Your task to perform on an android device: turn on the 12-hour format for clock Image 0: 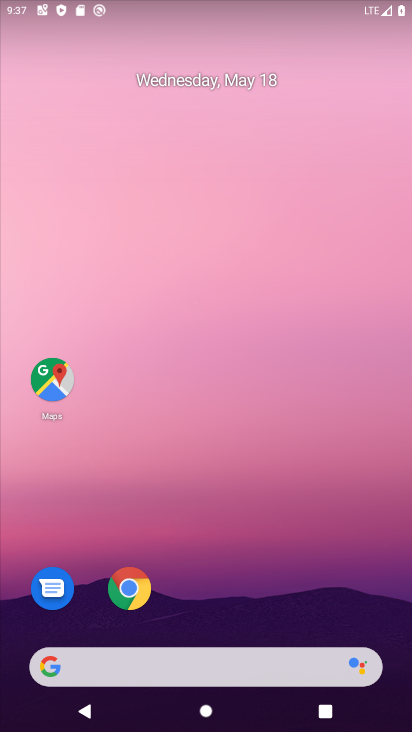
Step 0: drag from (315, 623) to (282, 42)
Your task to perform on an android device: turn on the 12-hour format for clock Image 1: 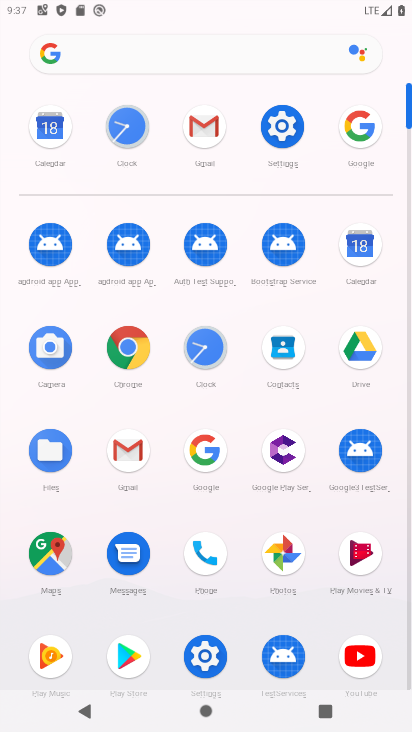
Step 1: click (123, 135)
Your task to perform on an android device: turn on the 12-hour format for clock Image 2: 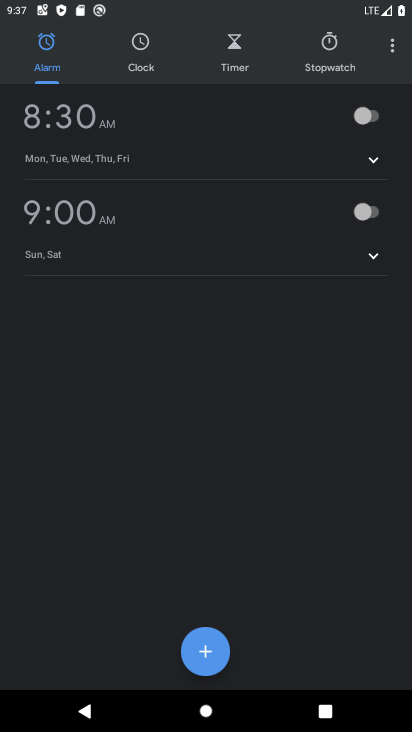
Step 2: click (394, 43)
Your task to perform on an android device: turn on the 12-hour format for clock Image 3: 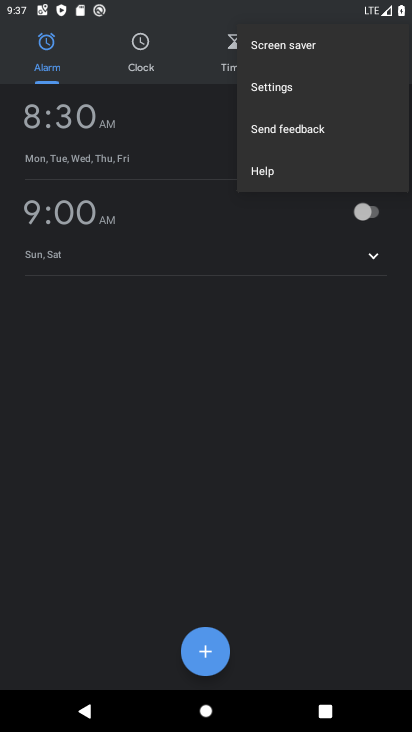
Step 3: click (263, 87)
Your task to perform on an android device: turn on the 12-hour format for clock Image 4: 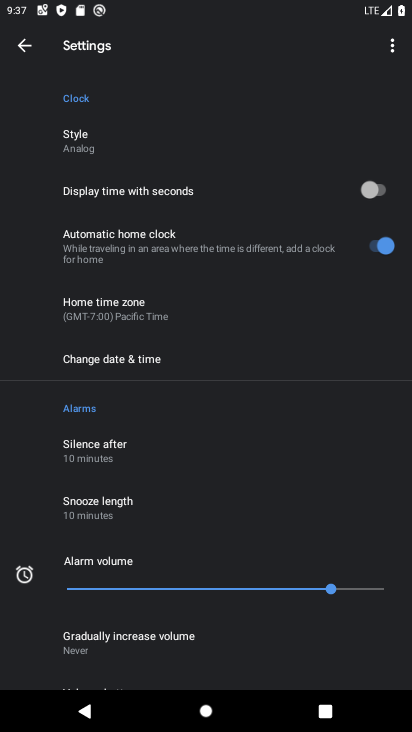
Step 4: click (117, 368)
Your task to perform on an android device: turn on the 12-hour format for clock Image 5: 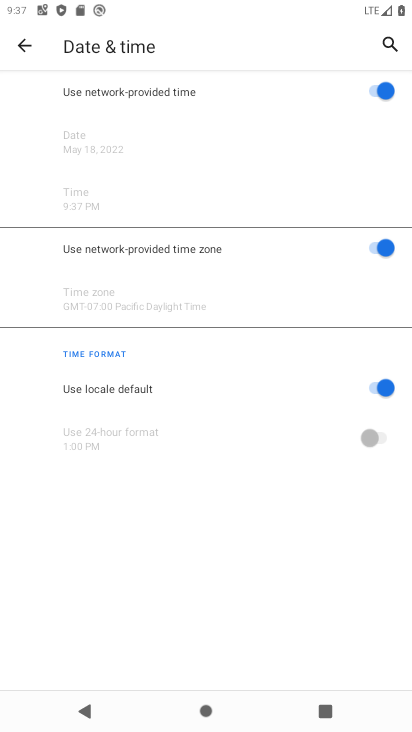
Step 5: task complete